Your task to perform on an android device: open app "Google Maps" (install if not already installed) Image 0: 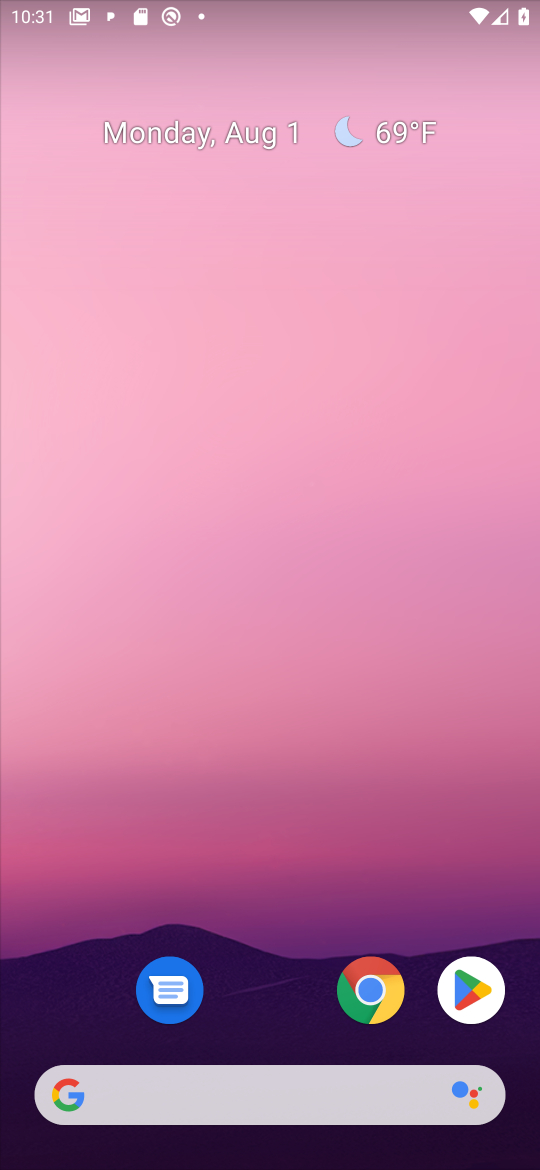
Step 0: press home button
Your task to perform on an android device: open app "Google Maps" (install if not already installed) Image 1: 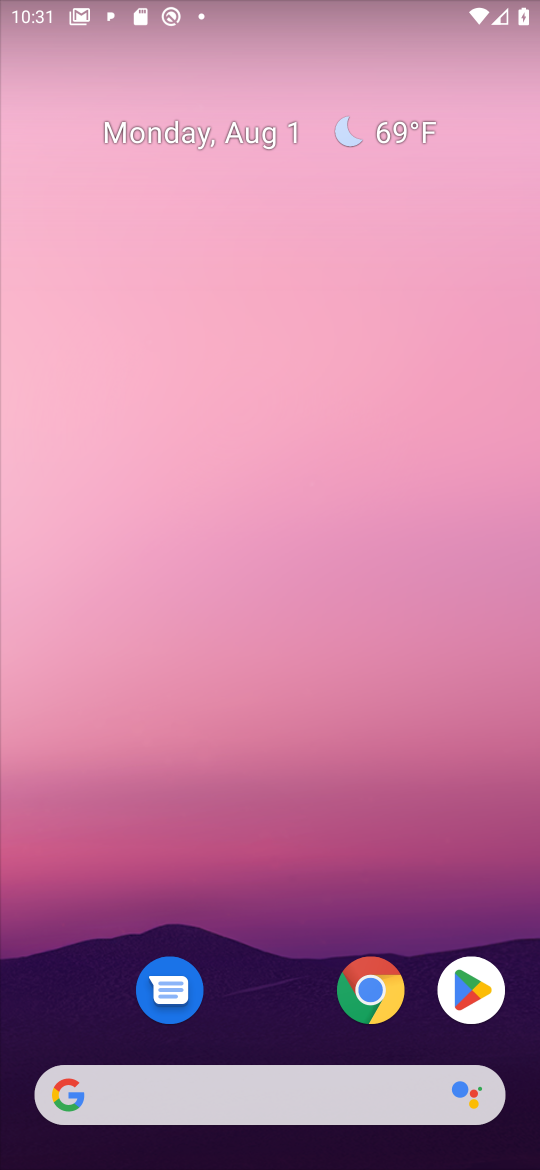
Step 1: click (467, 1008)
Your task to perform on an android device: open app "Google Maps" (install if not already installed) Image 2: 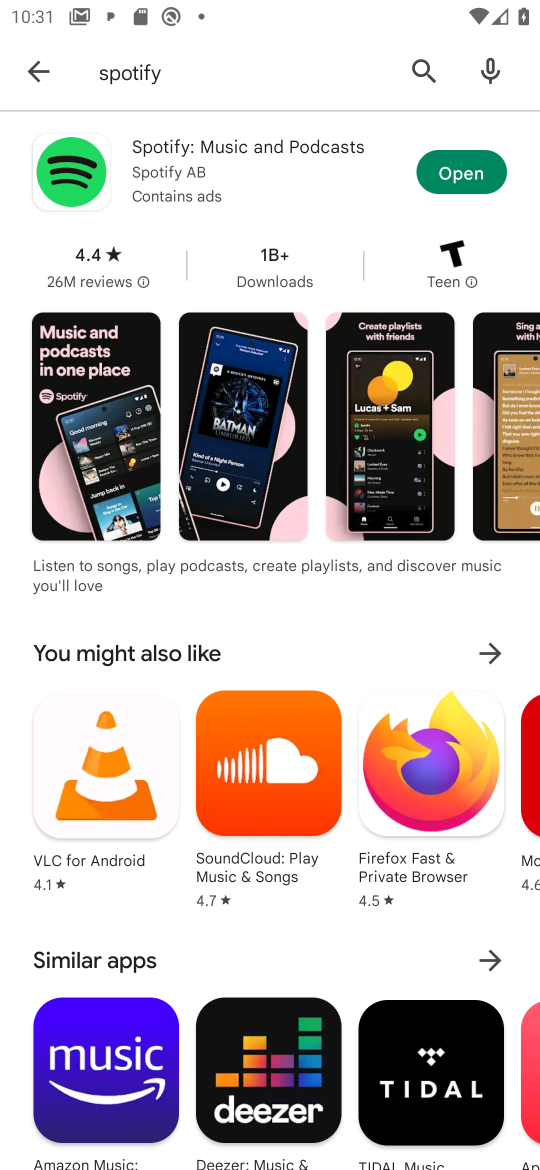
Step 2: click (419, 77)
Your task to perform on an android device: open app "Google Maps" (install if not already installed) Image 3: 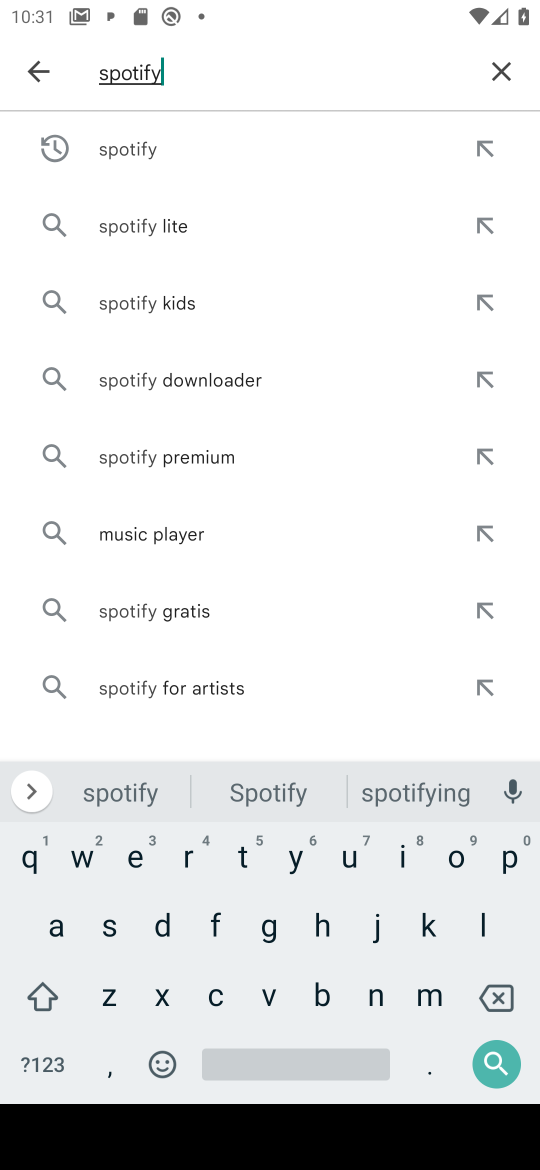
Step 3: click (487, 77)
Your task to perform on an android device: open app "Google Maps" (install if not already installed) Image 4: 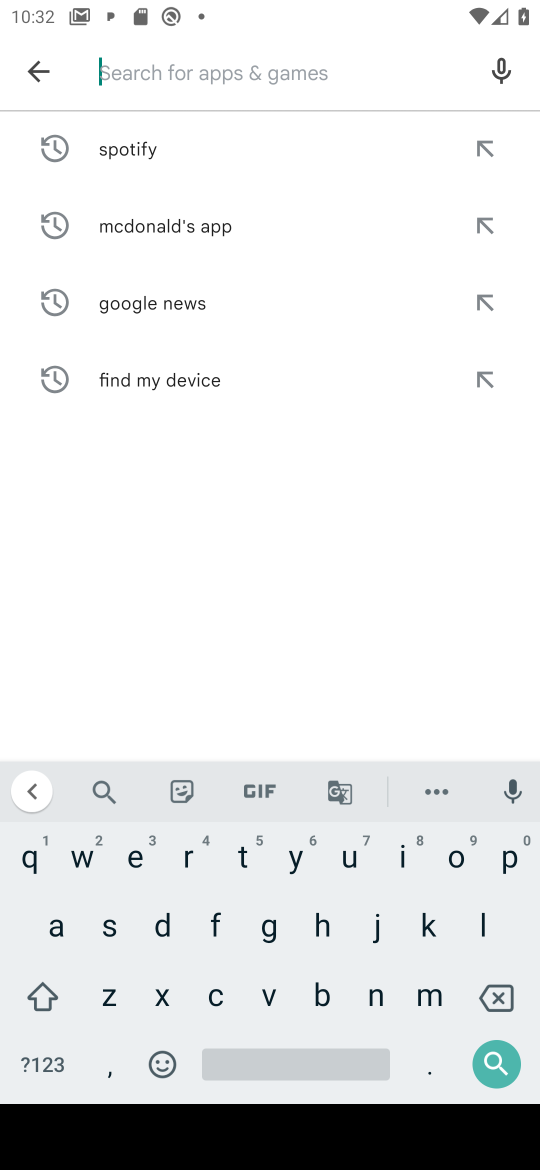
Step 4: click (433, 988)
Your task to perform on an android device: open app "Google Maps" (install if not already installed) Image 5: 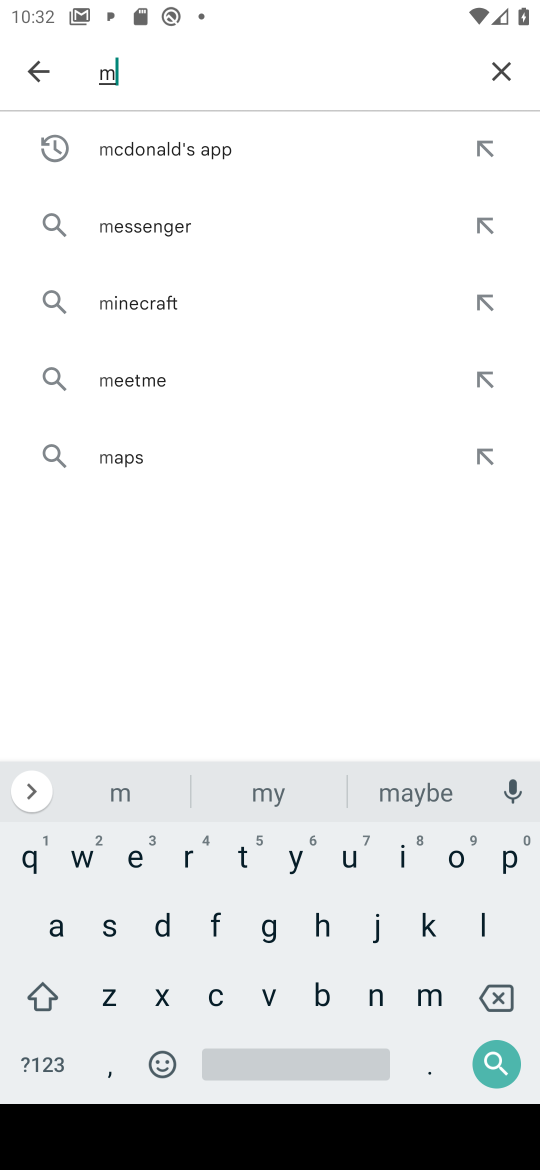
Step 5: click (44, 917)
Your task to perform on an android device: open app "Google Maps" (install if not already installed) Image 6: 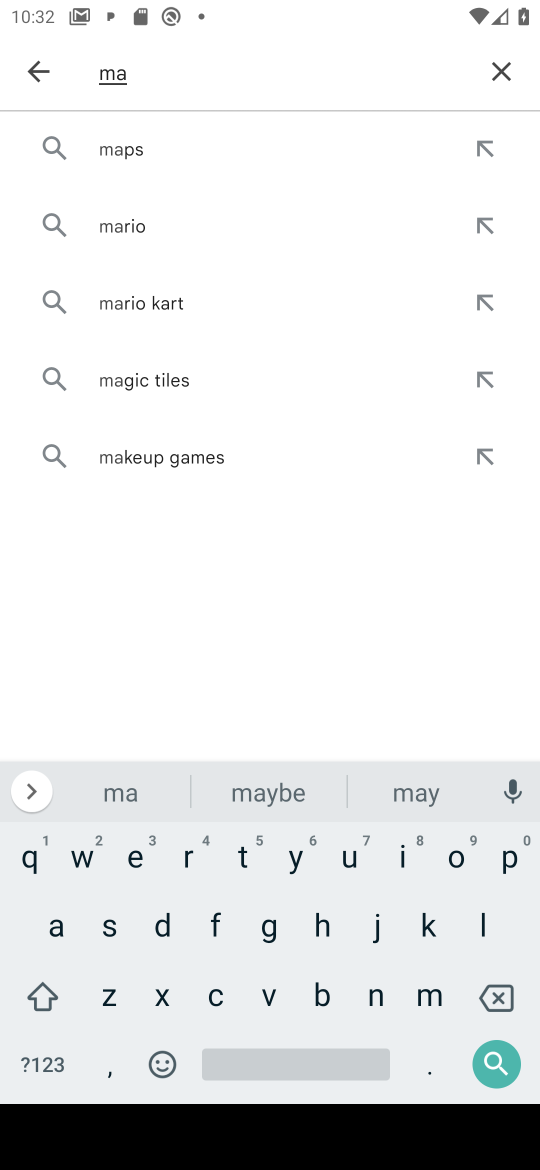
Step 6: click (171, 145)
Your task to perform on an android device: open app "Google Maps" (install if not already installed) Image 7: 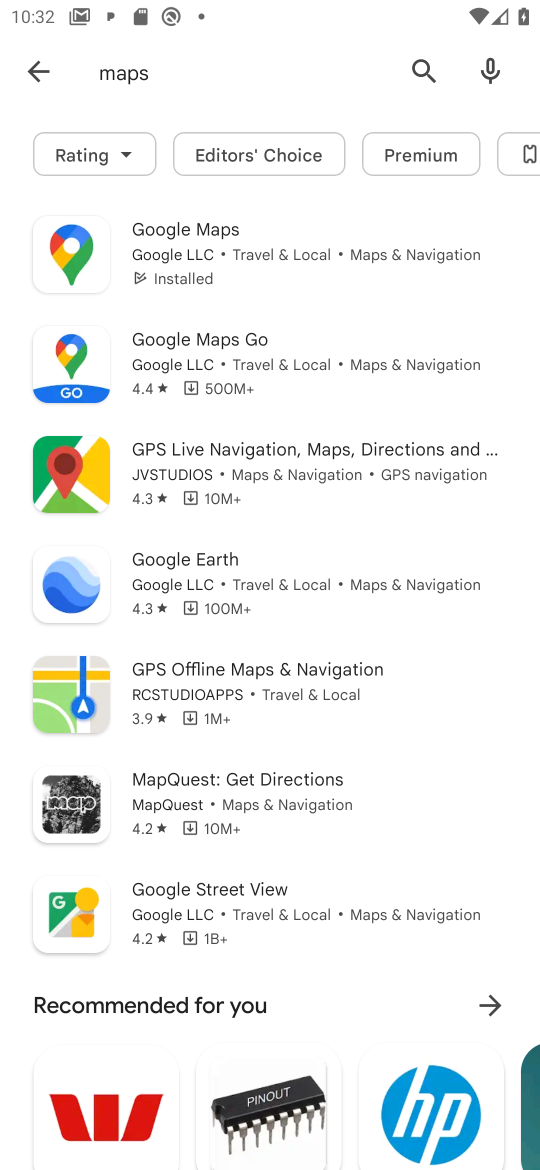
Step 7: click (233, 239)
Your task to perform on an android device: open app "Google Maps" (install if not already installed) Image 8: 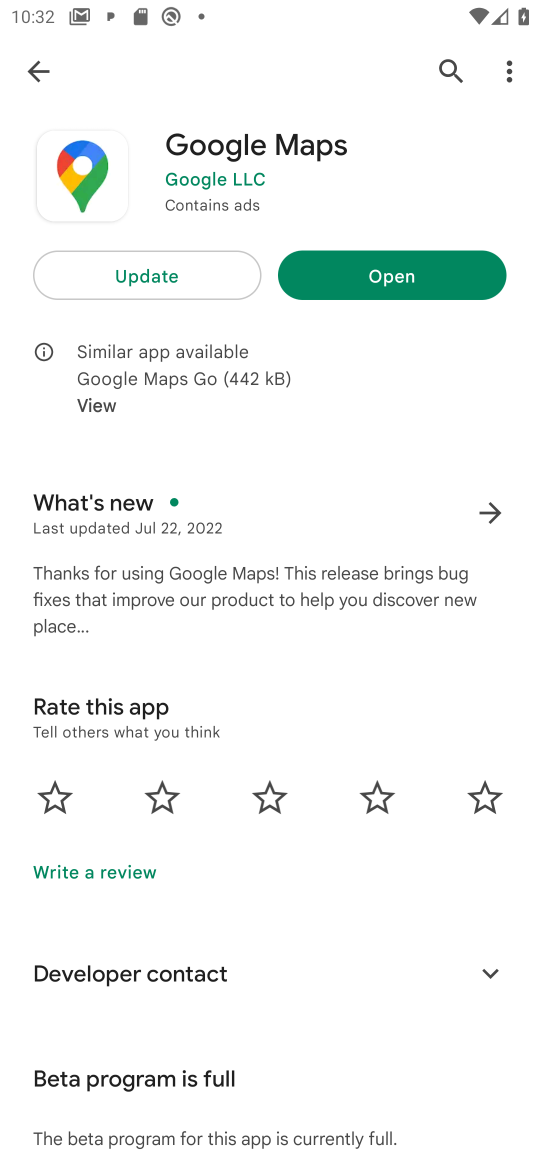
Step 8: click (398, 275)
Your task to perform on an android device: open app "Google Maps" (install if not already installed) Image 9: 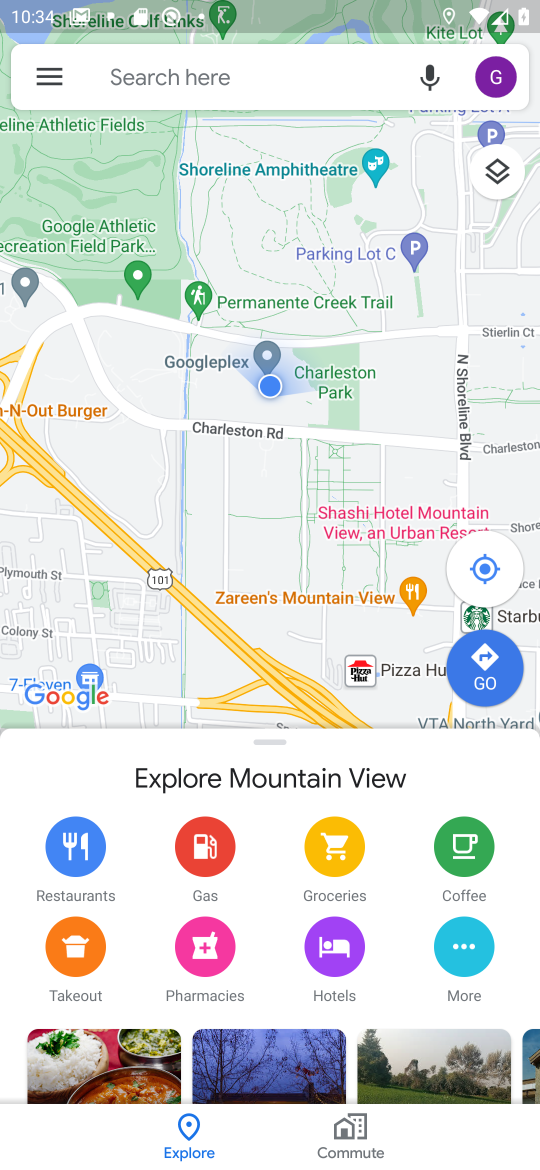
Step 9: task complete